Your task to perform on an android device: Go to sound settings Image 0: 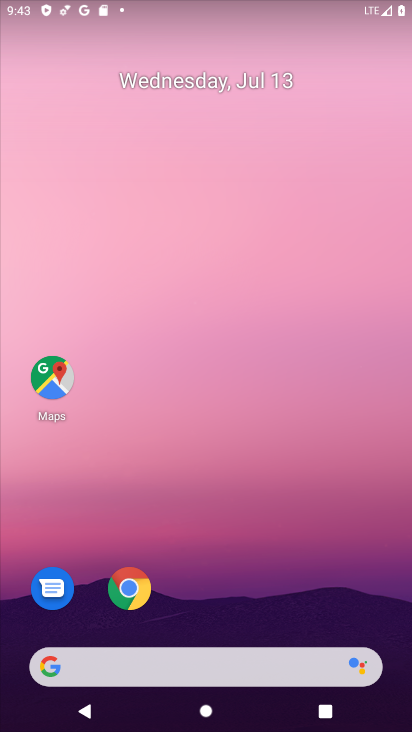
Step 0: drag from (229, 597) to (281, 63)
Your task to perform on an android device: Go to sound settings Image 1: 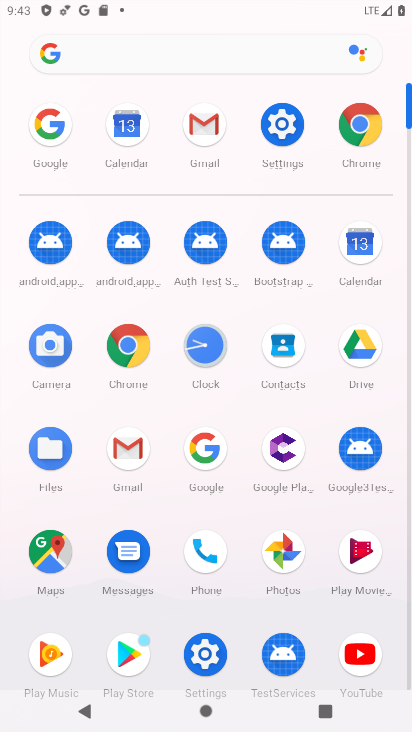
Step 1: click (282, 124)
Your task to perform on an android device: Go to sound settings Image 2: 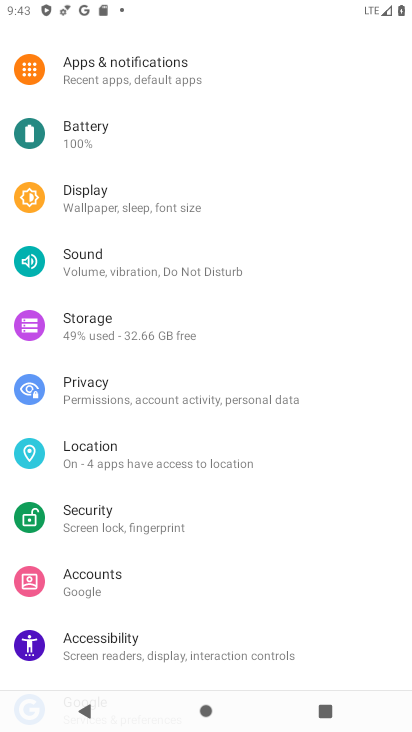
Step 2: click (124, 266)
Your task to perform on an android device: Go to sound settings Image 3: 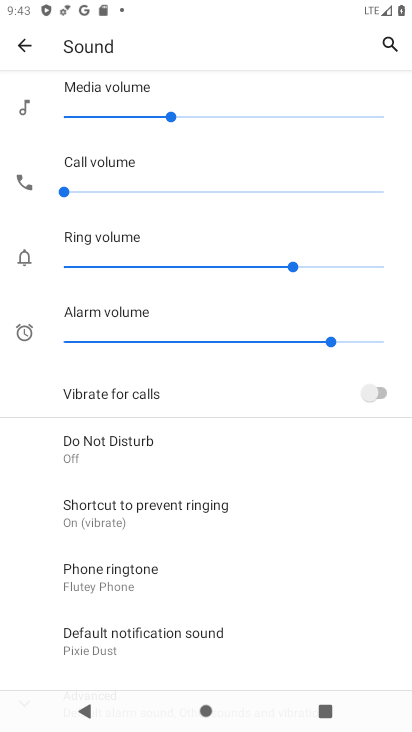
Step 3: task complete